Your task to perform on an android device: Open settings on Google Maps Image 0: 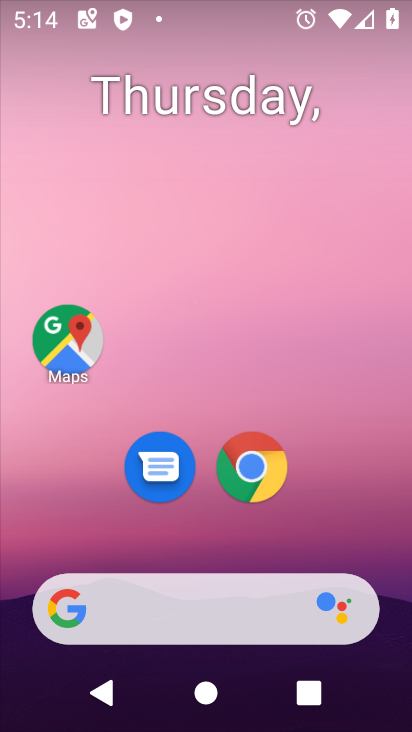
Step 0: click (72, 352)
Your task to perform on an android device: Open settings on Google Maps Image 1: 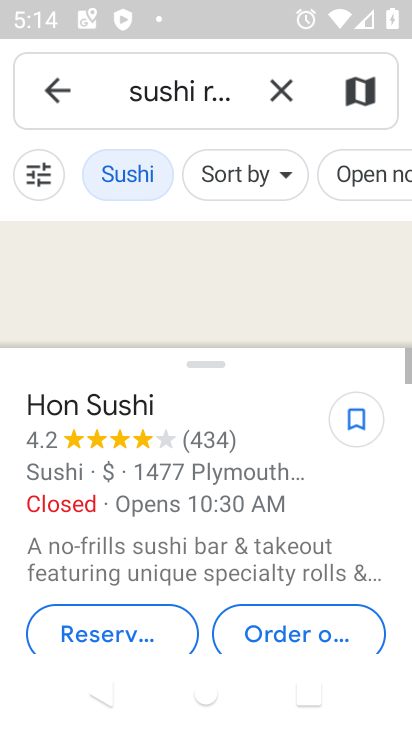
Step 1: click (44, 93)
Your task to perform on an android device: Open settings on Google Maps Image 2: 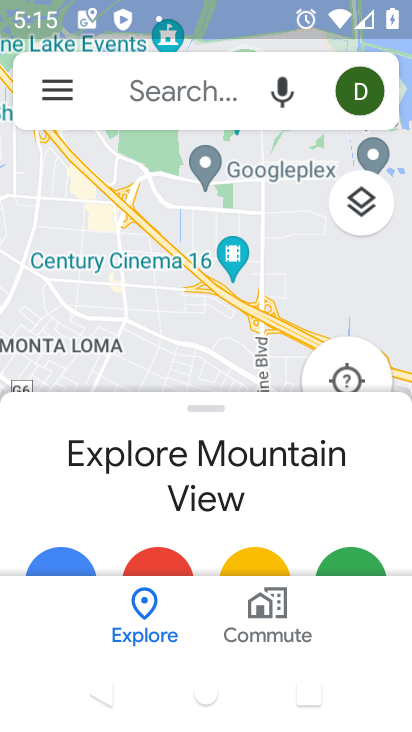
Step 2: click (44, 93)
Your task to perform on an android device: Open settings on Google Maps Image 3: 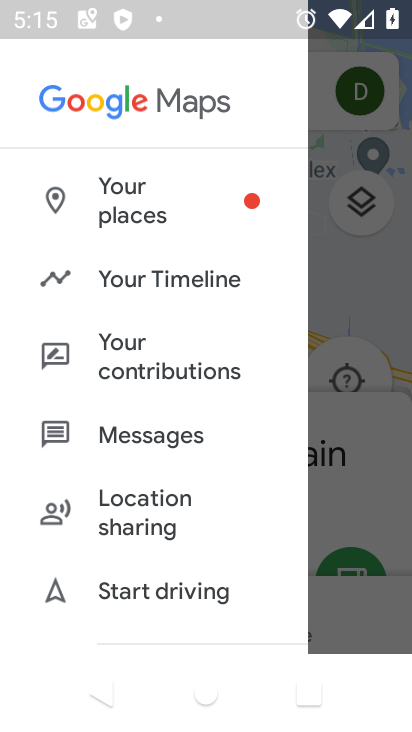
Step 3: drag from (146, 537) to (161, 86)
Your task to perform on an android device: Open settings on Google Maps Image 4: 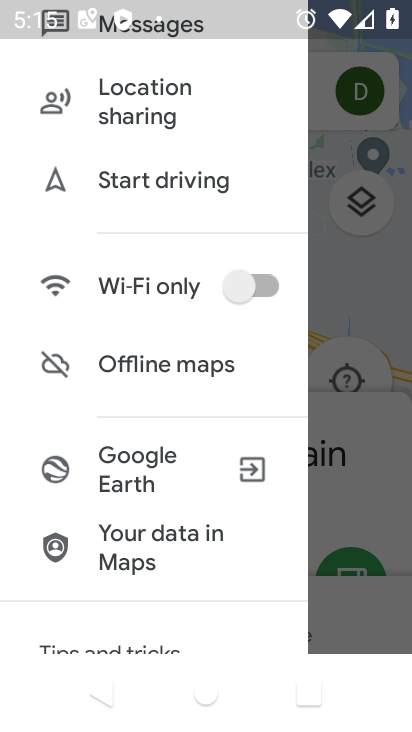
Step 4: drag from (109, 537) to (141, 73)
Your task to perform on an android device: Open settings on Google Maps Image 5: 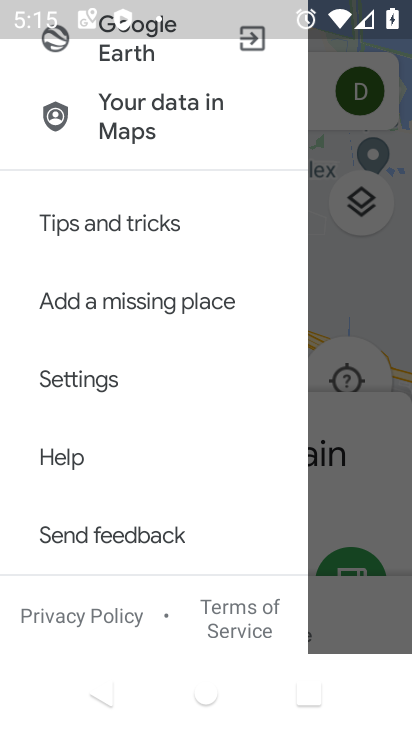
Step 5: click (129, 362)
Your task to perform on an android device: Open settings on Google Maps Image 6: 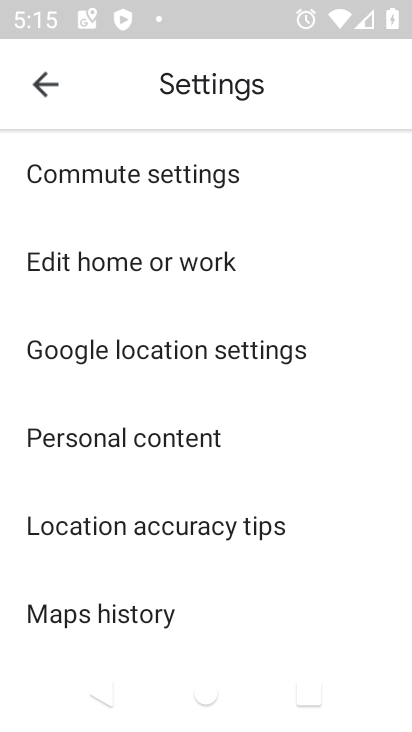
Step 6: task complete